Your task to perform on an android device: What is the news today? Image 0: 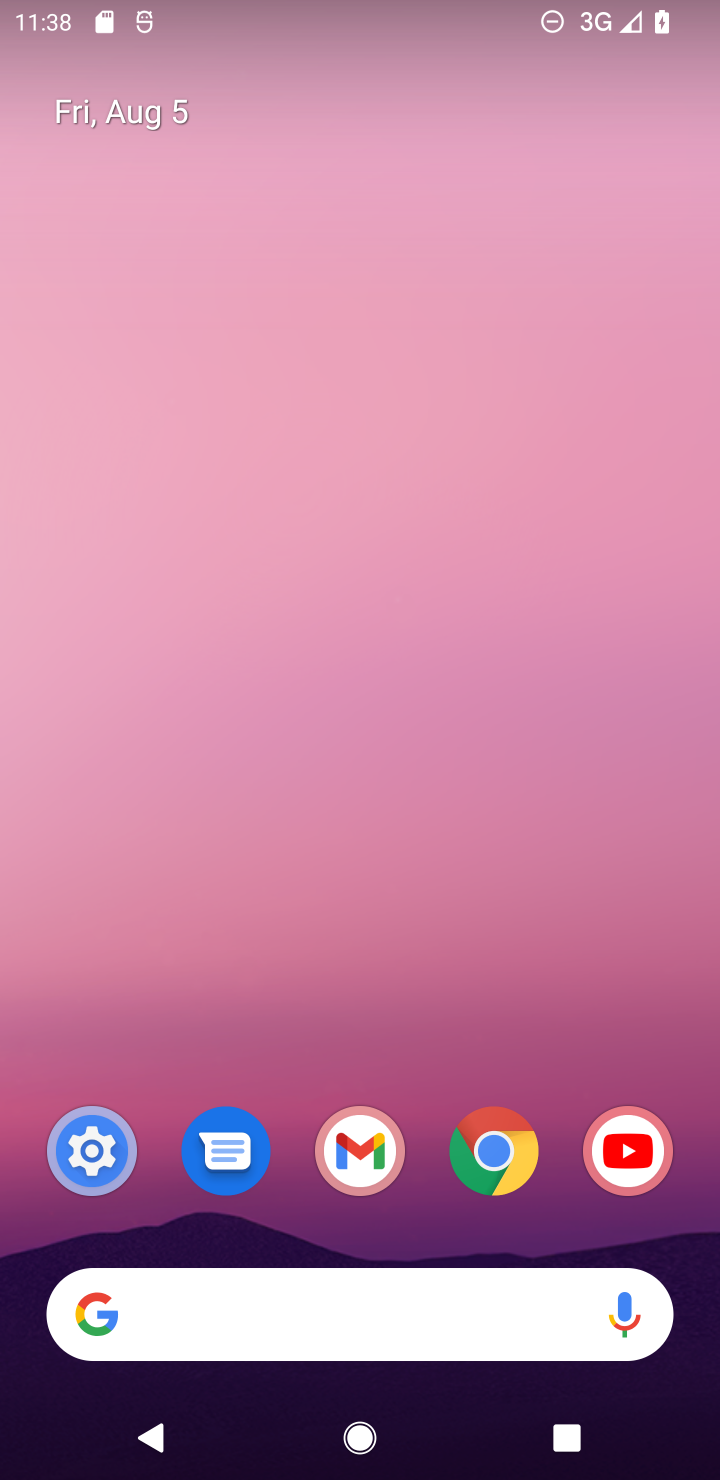
Step 0: click (346, 1304)
Your task to perform on an android device: What is the news today? Image 1: 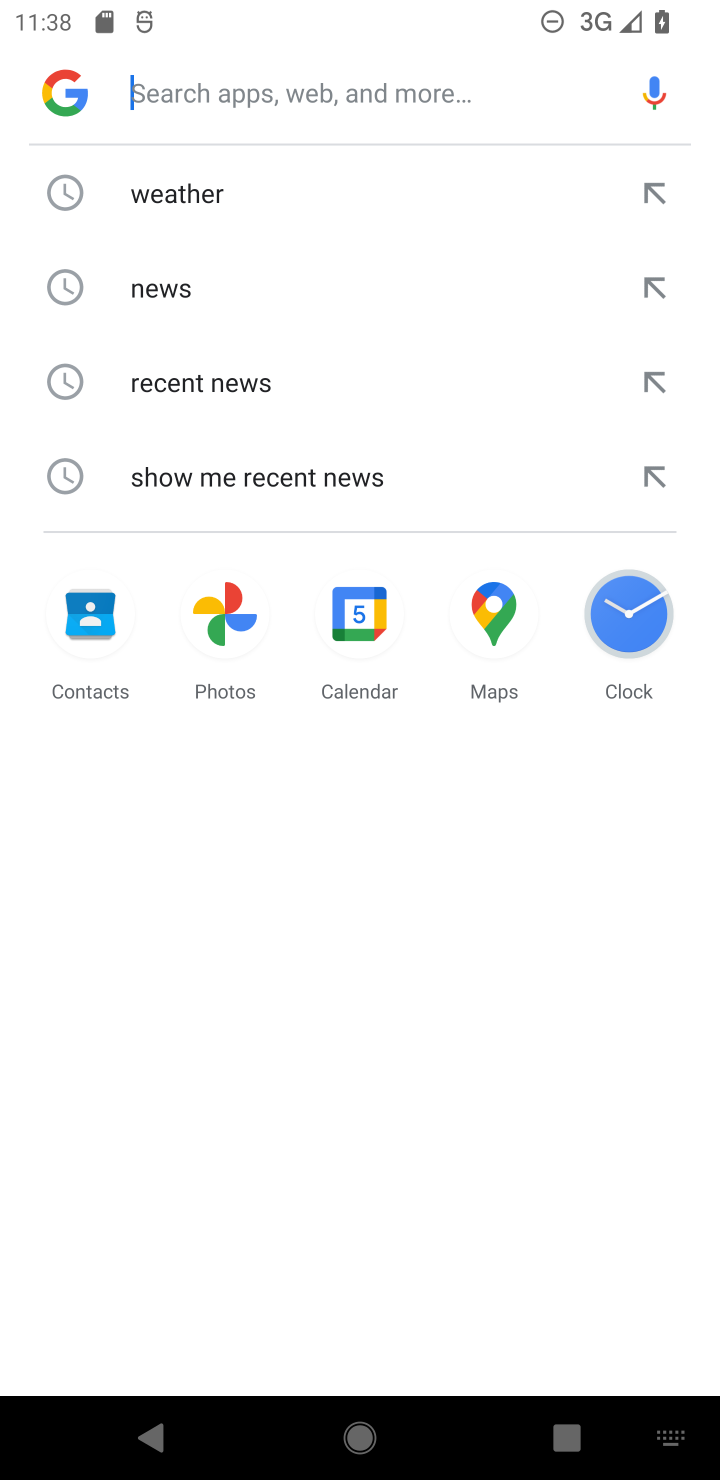
Step 1: type "news today"
Your task to perform on an android device: What is the news today? Image 2: 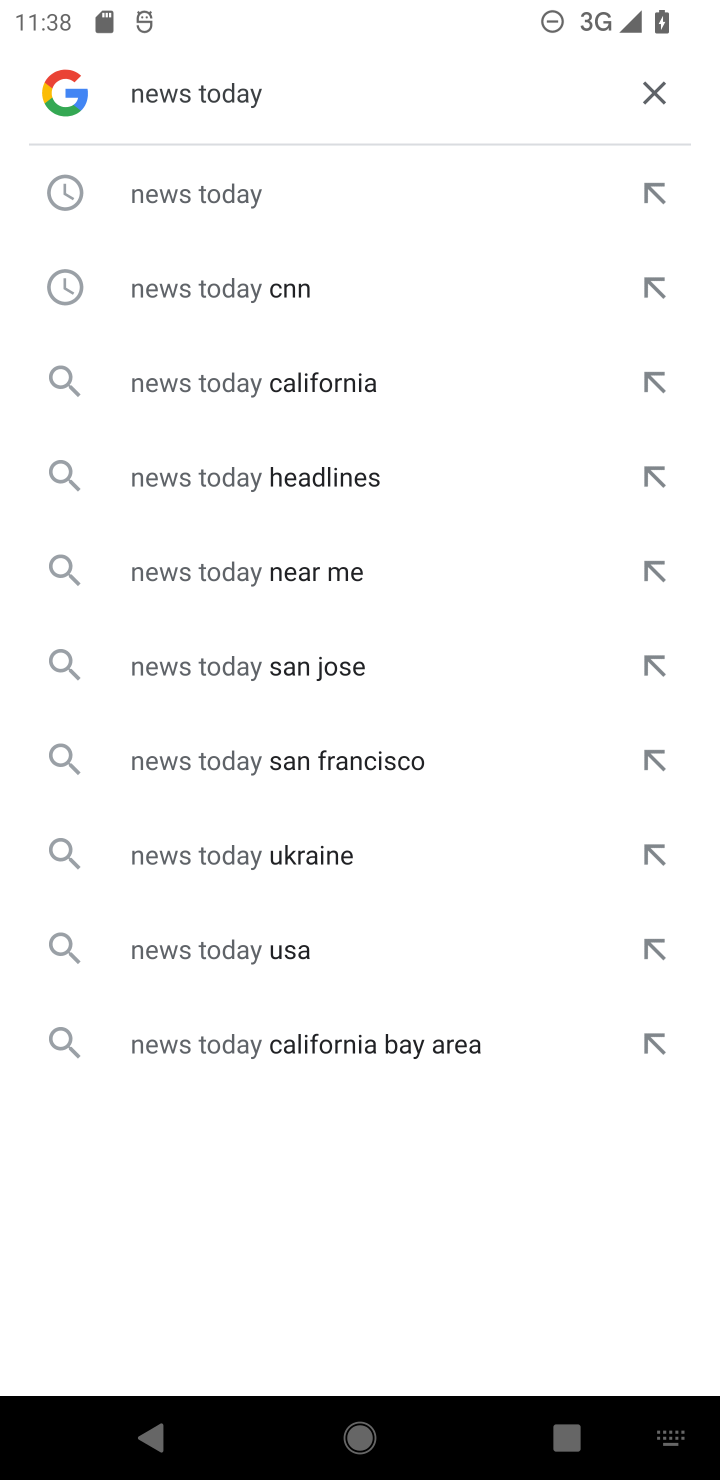
Step 2: click (197, 217)
Your task to perform on an android device: What is the news today? Image 3: 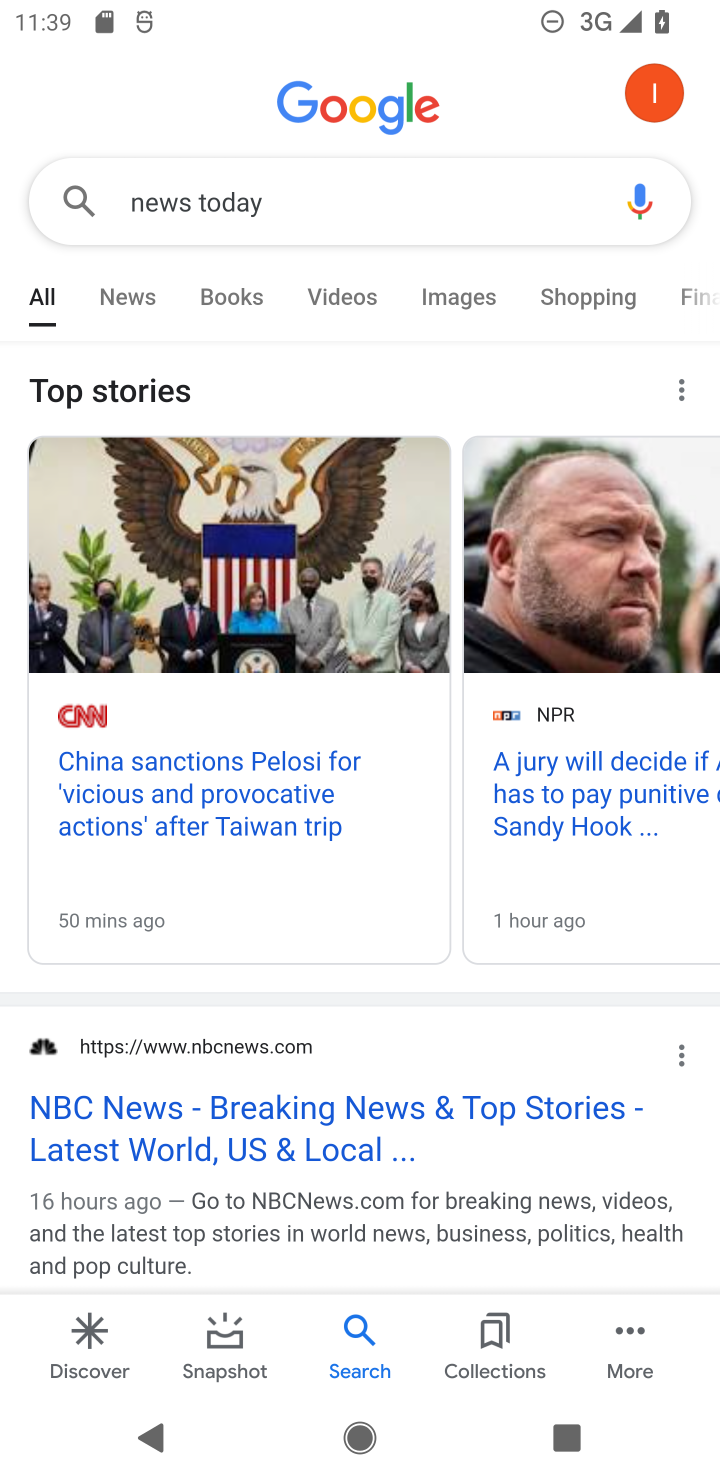
Step 3: task complete